Your task to perform on an android device: turn off notifications in google photos Image 0: 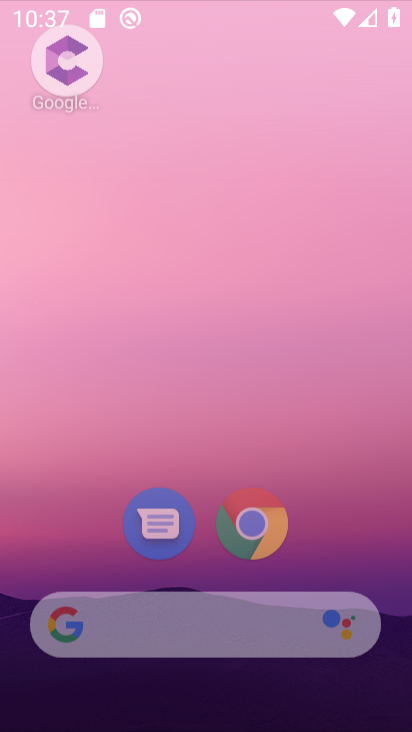
Step 0: click (296, 82)
Your task to perform on an android device: turn off notifications in google photos Image 1: 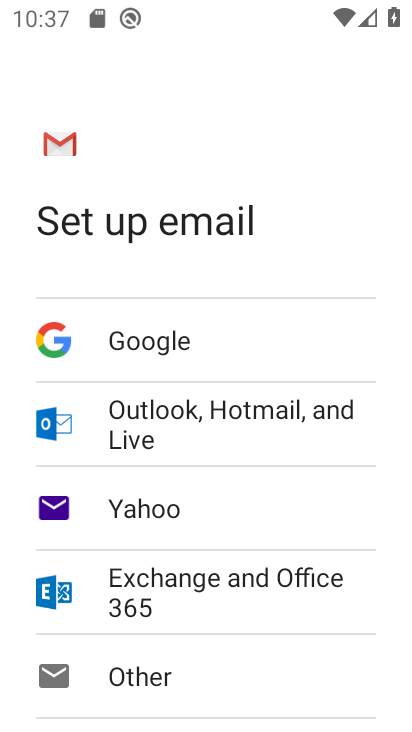
Step 1: press home button
Your task to perform on an android device: turn off notifications in google photos Image 2: 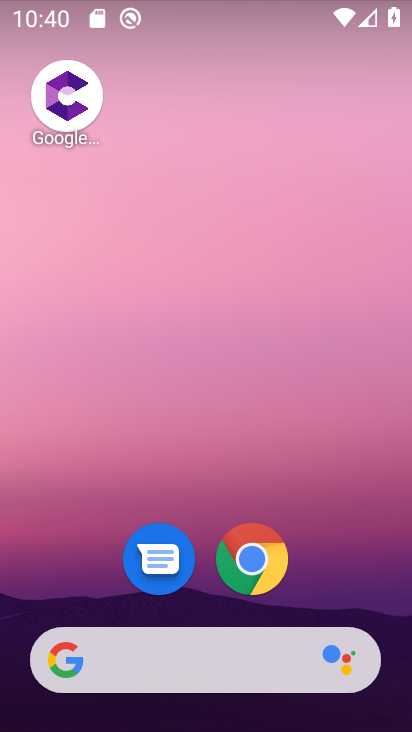
Step 2: drag from (249, 614) to (218, 102)
Your task to perform on an android device: turn off notifications in google photos Image 3: 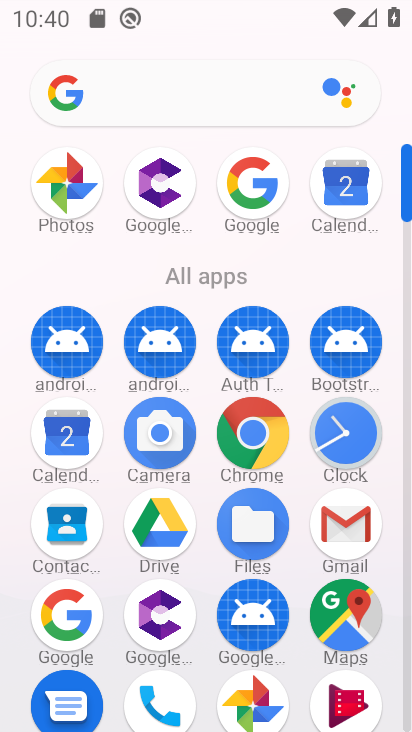
Step 3: click (243, 688)
Your task to perform on an android device: turn off notifications in google photos Image 4: 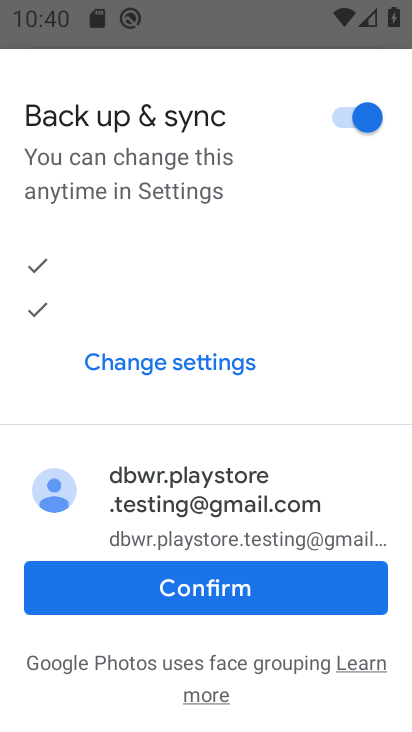
Step 4: click (63, 81)
Your task to perform on an android device: turn off notifications in google photos Image 5: 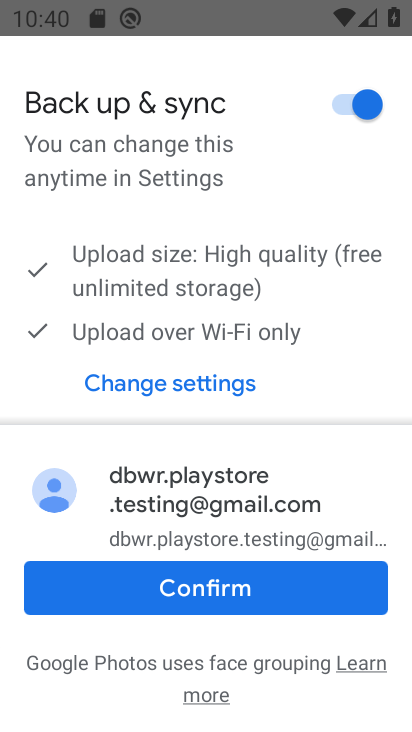
Step 5: click (299, 588)
Your task to perform on an android device: turn off notifications in google photos Image 6: 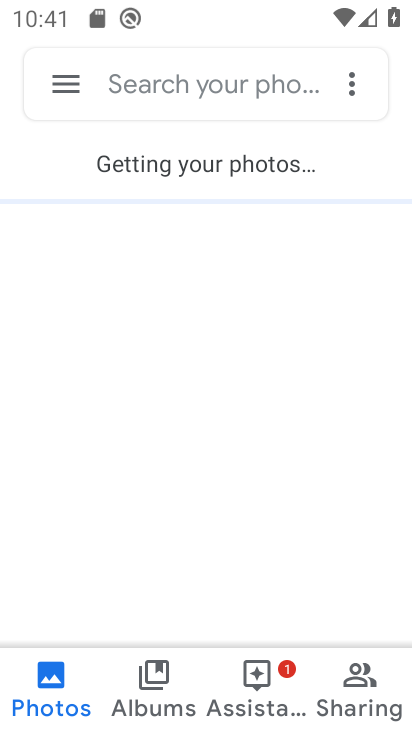
Step 6: click (62, 91)
Your task to perform on an android device: turn off notifications in google photos Image 7: 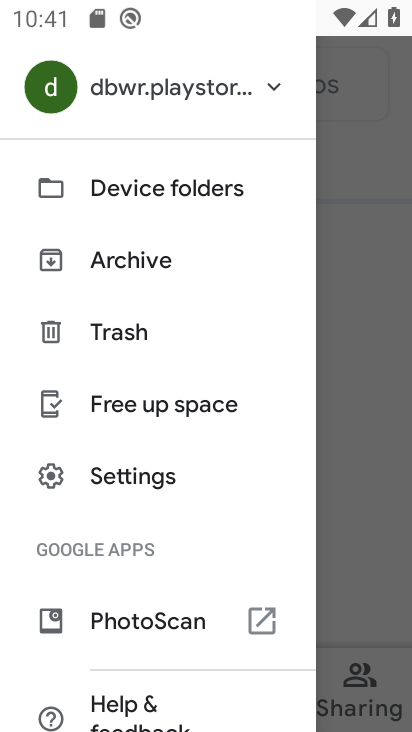
Step 7: drag from (137, 669) to (138, 268)
Your task to perform on an android device: turn off notifications in google photos Image 8: 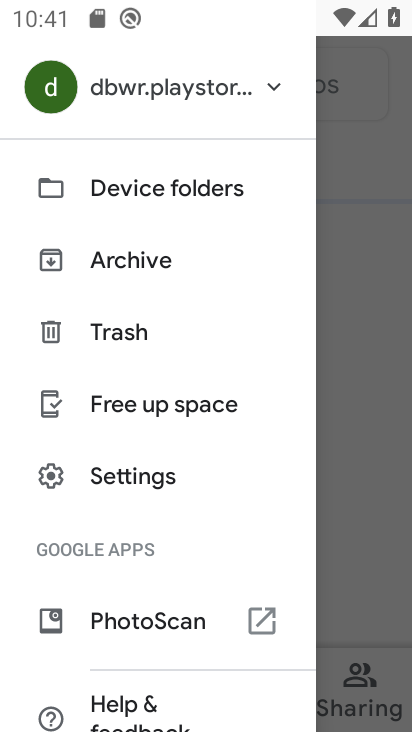
Step 8: click (142, 478)
Your task to perform on an android device: turn off notifications in google photos Image 9: 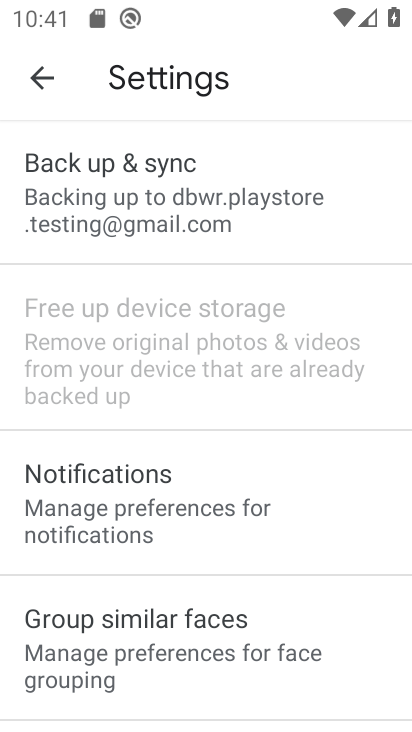
Step 9: click (104, 215)
Your task to perform on an android device: turn off notifications in google photos Image 10: 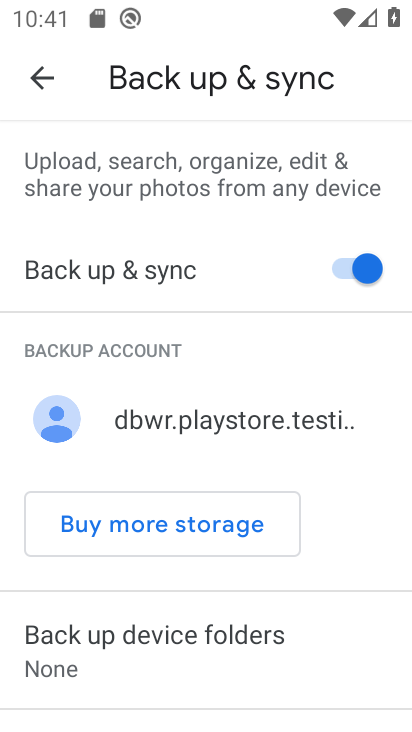
Step 10: click (43, 82)
Your task to perform on an android device: turn off notifications in google photos Image 11: 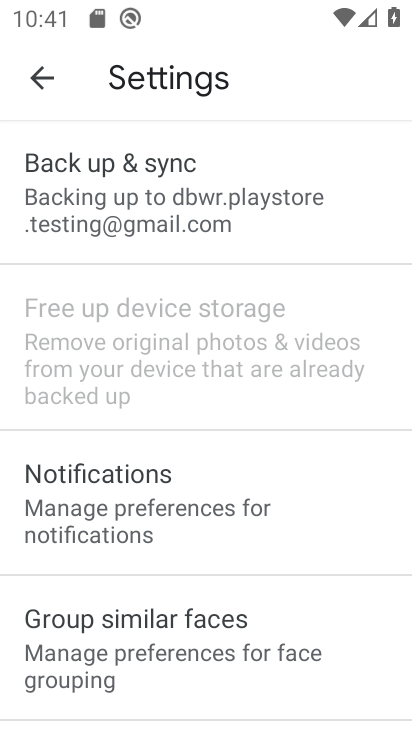
Step 11: click (114, 500)
Your task to perform on an android device: turn off notifications in google photos Image 12: 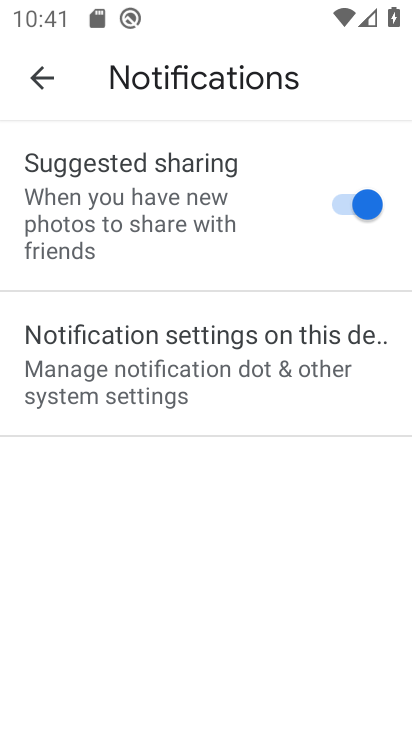
Step 12: click (184, 383)
Your task to perform on an android device: turn off notifications in google photos Image 13: 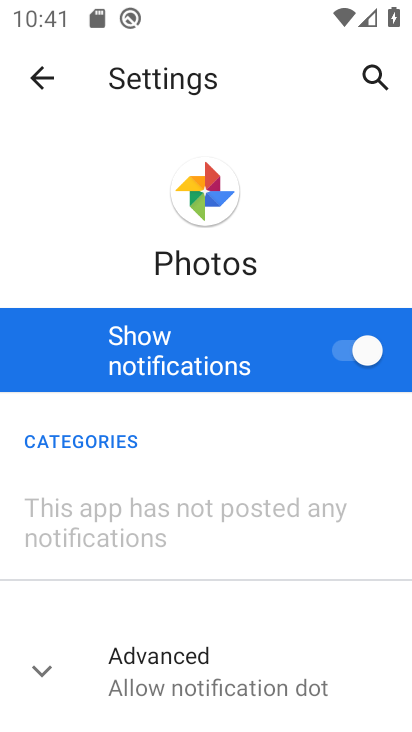
Step 13: click (345, 350)
Your task to perform on an android device: turn off notifications in google photos Image 14: 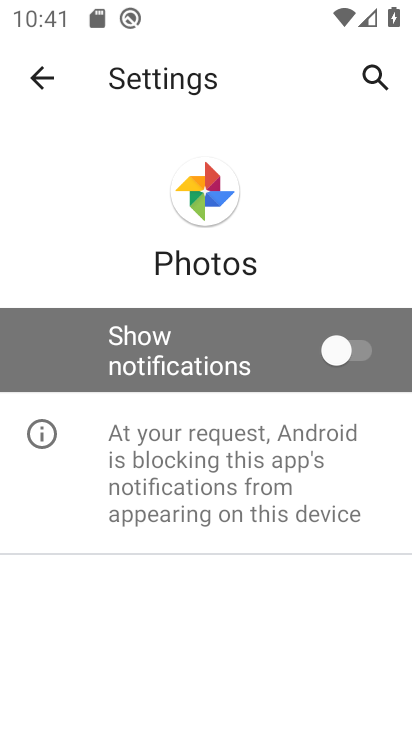
Step 14: task complete